Your task to perform on an android device: clear all cookies in the chrome app Image 0: 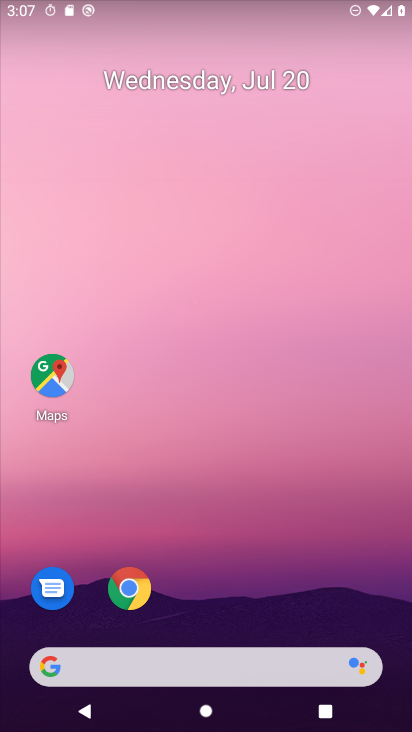
Step 0: drag from (175, 638) to (129, 184)
Your task to perform on an android device: clear all cookies in the chrome app Image 1: 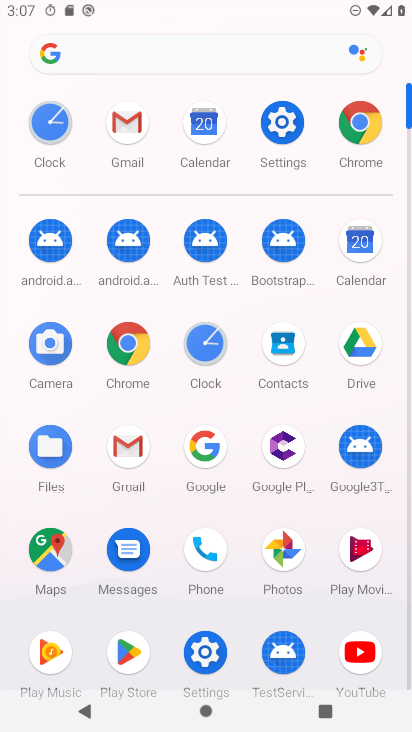
Step 1: click (144, 359)
Your task to perform on an android device: clear all cookies in the chrome app Image 2: 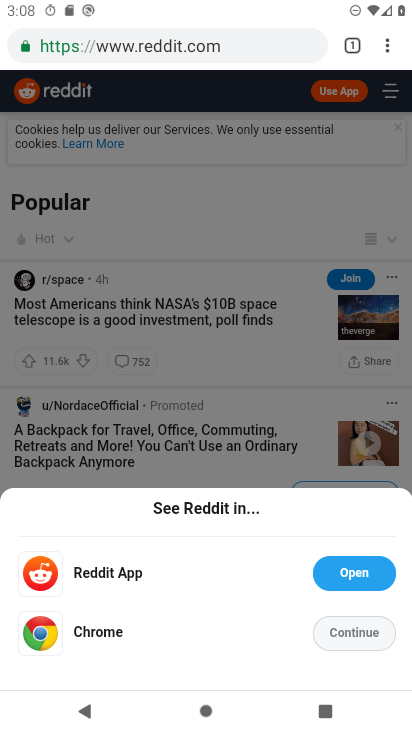
Step 2: click (386, 52)
Your task to perform on an android device: clear all cookies in the chrome app Image 3: 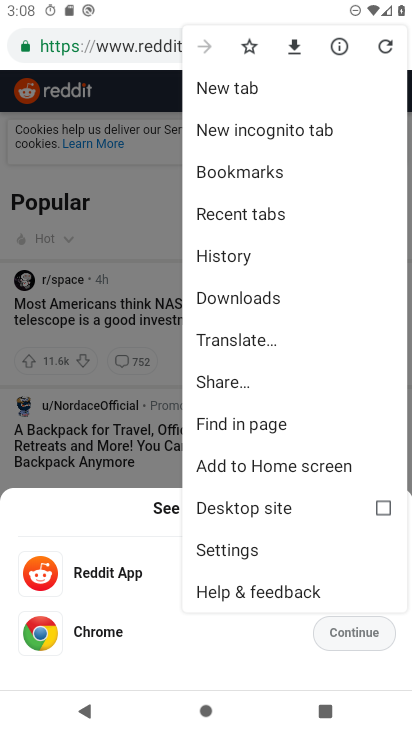
Step 3: click (217, 258)
Your task to perform on an android device: clear all cookies in the chrome app Image 4: 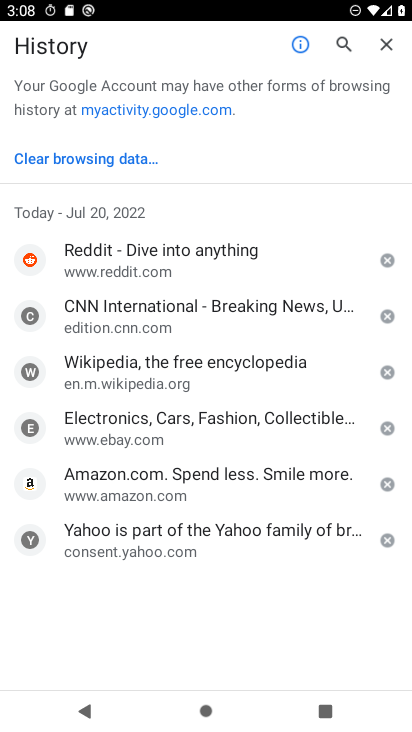
Step 4: click (81, 165)
Your task to perform on an android device: clear all cookies in the chrome app Image 5: 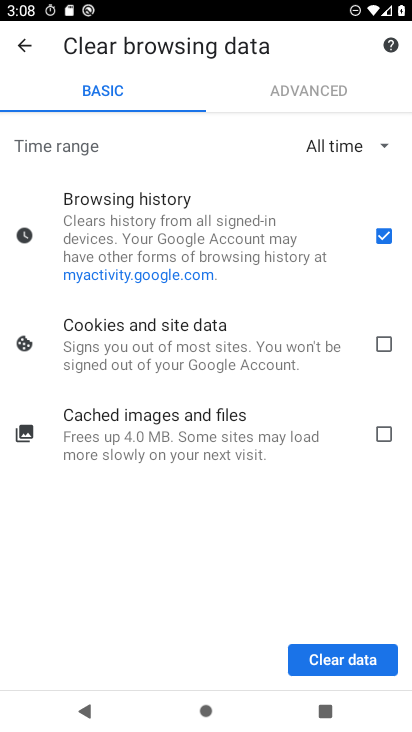
Step 5: click (381, 352)
Your task to perform on an android device: clear all cookies in the chrome app Image 6: 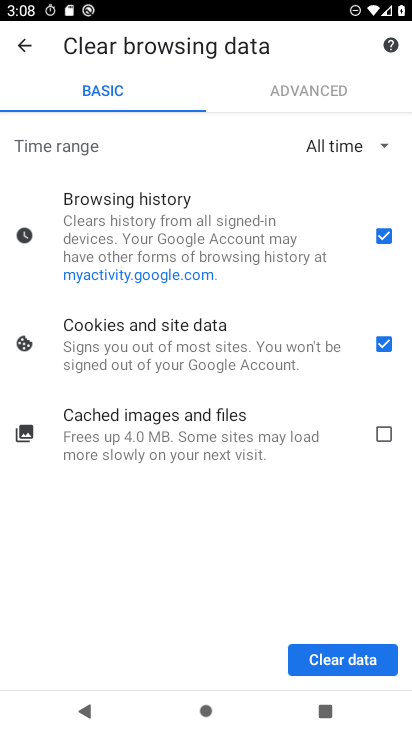
Step 6: click (370, 436)
Your task to perform on an android device: clear all cookies in the chrome app Image 7: 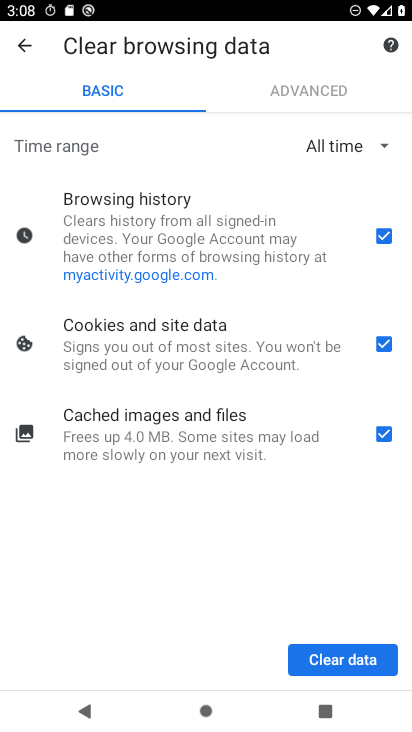
Step 7: click (331, 673)
Your task to perform on an android device: clear all cookies in the chrome app Image 8: 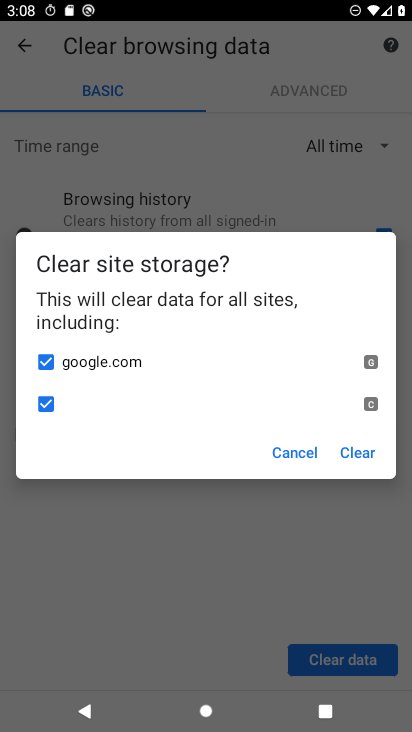
Step 8: click (359, 463)
Your task to perform on an android device: clear all cookies in the chrome app Image 9: 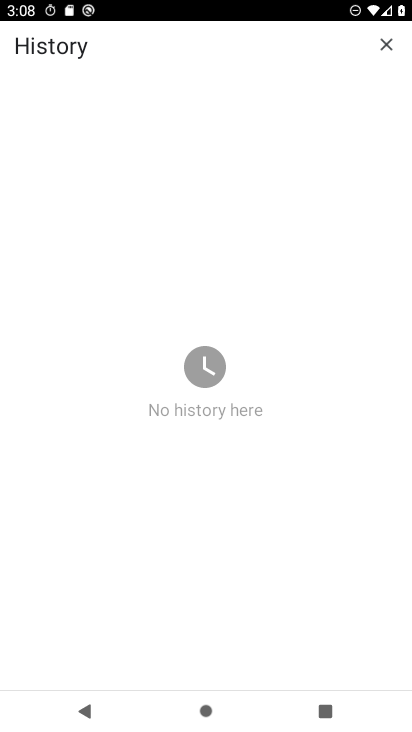
Step 9: task complete